Your task to perform on an android device: Find coffee shops on Maps Image 0: 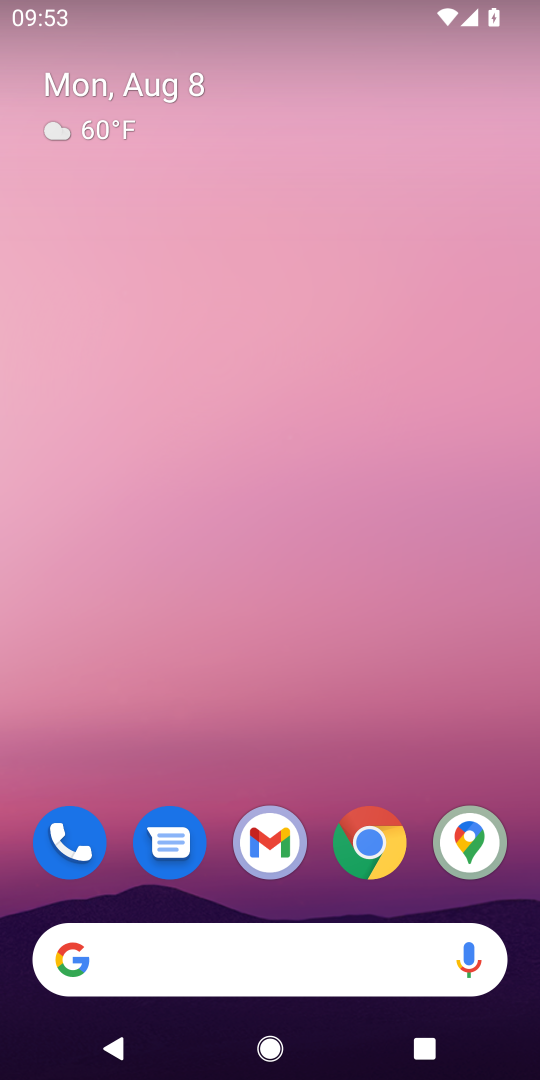
Step 0: click (480, 850)
Your task to perform on an android device: Find coffee shops on Maps Image 1: 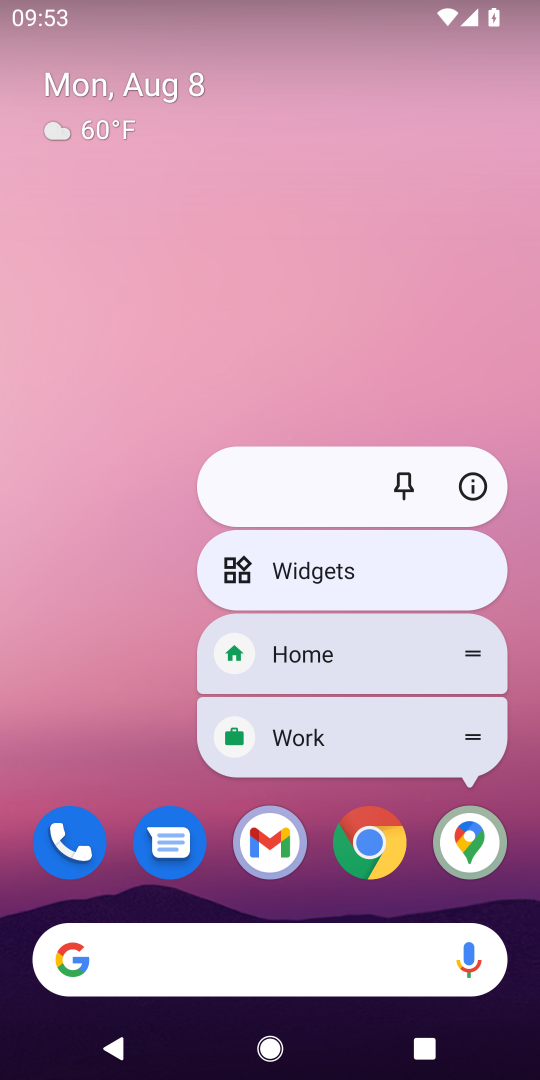
Step 1: click (480, 850)
Your task to perform on an android device: Find coffee shops on Maps Image 2: 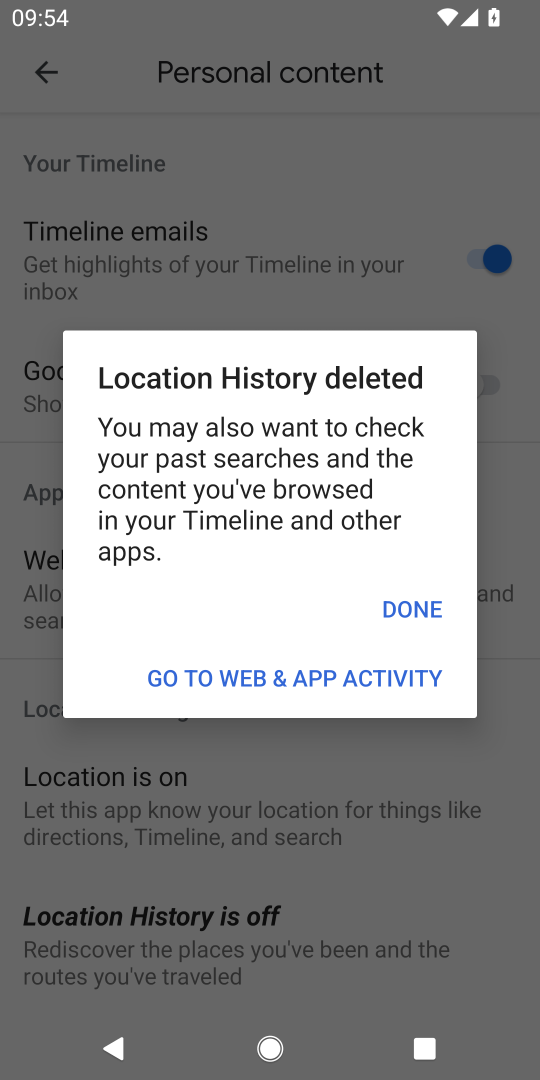
Step 2: click (420, 597)
Your task to perform on an android device: Find coffee shops on Maps Image 3: 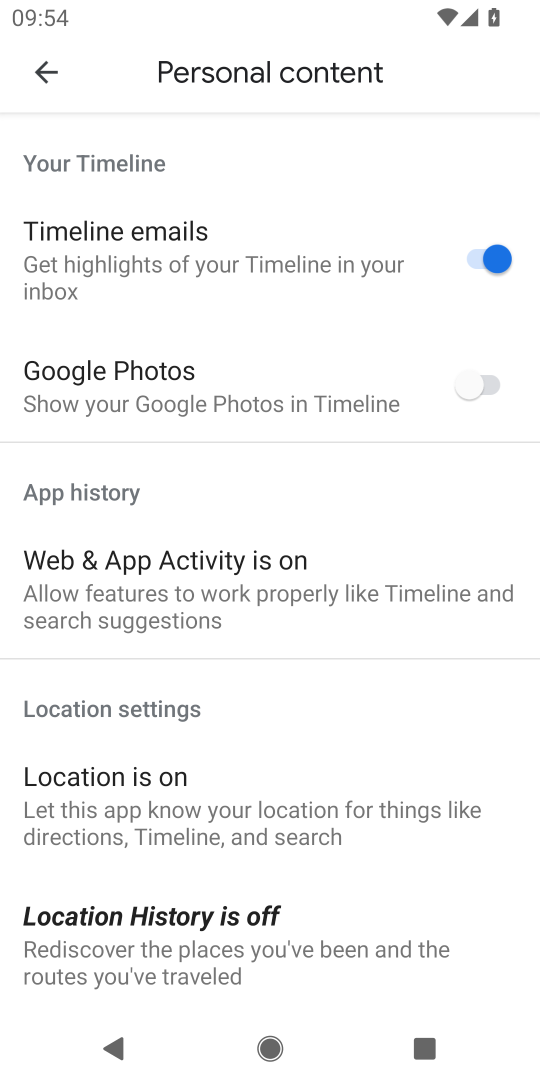
Step 3: click (37, 56)
Your task to perform on an android device: Find coffee shops on Maps Image 4: 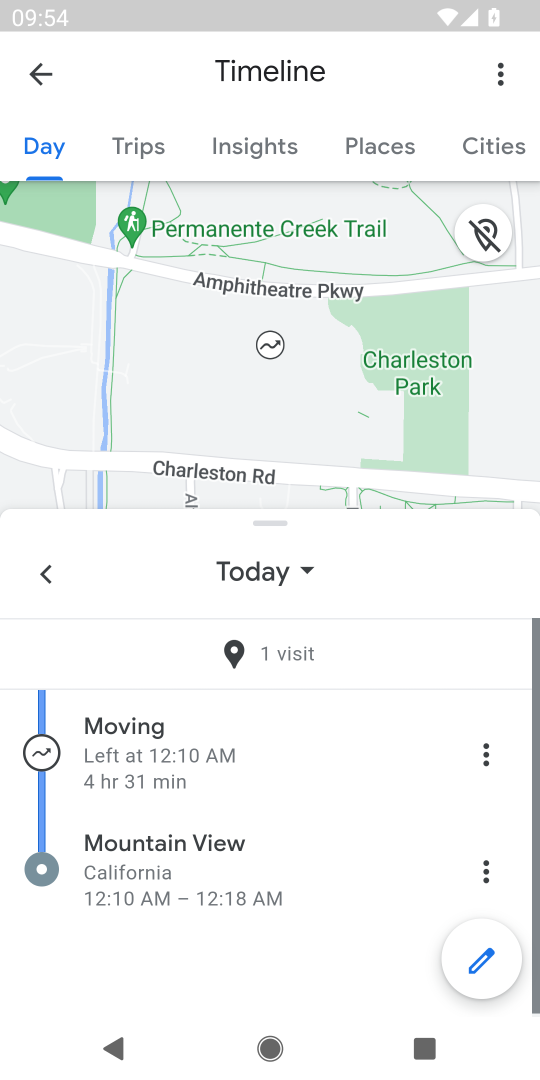
Step 4: click (38, 75)
Your task to perform on an android device: Find coffee shops on Maps Image 5: 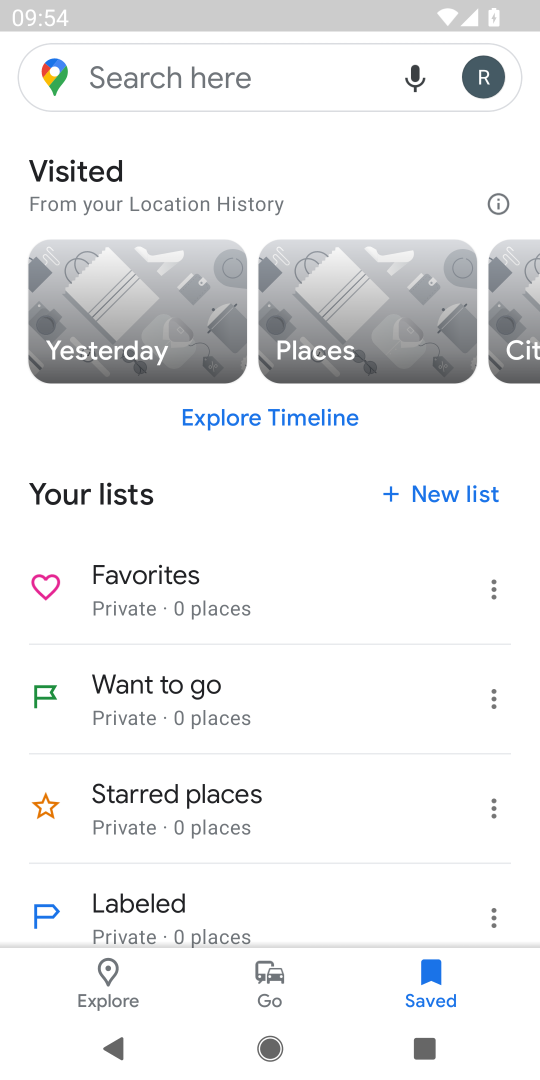
Step 5: click (92, 988)
Your task to perform on an android device: Find coffee shops on Maps Image 6: 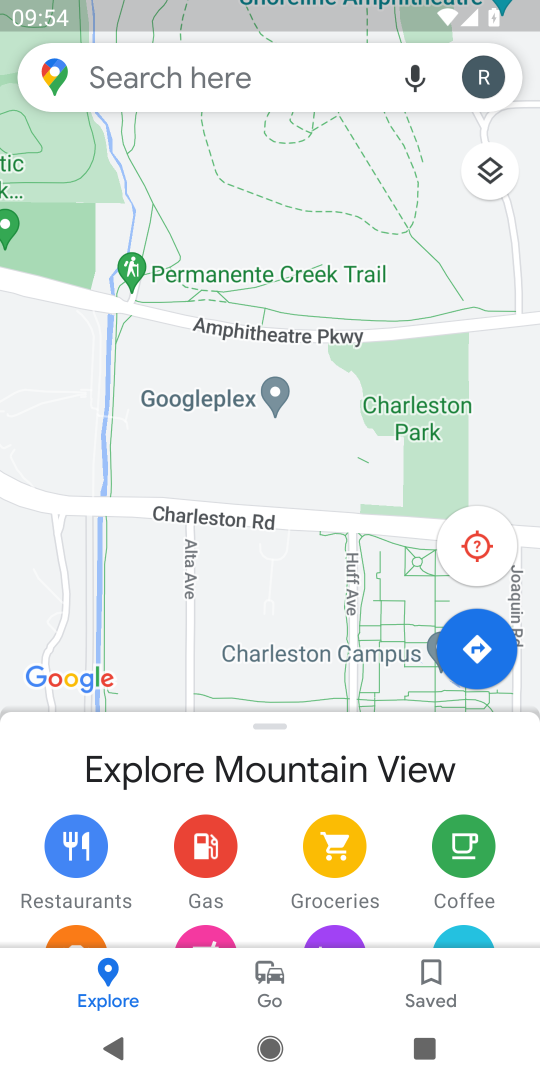
Step 6: click (268, 81)
Your task to perform on an android device: Find coffee shops on Maps Image 7: 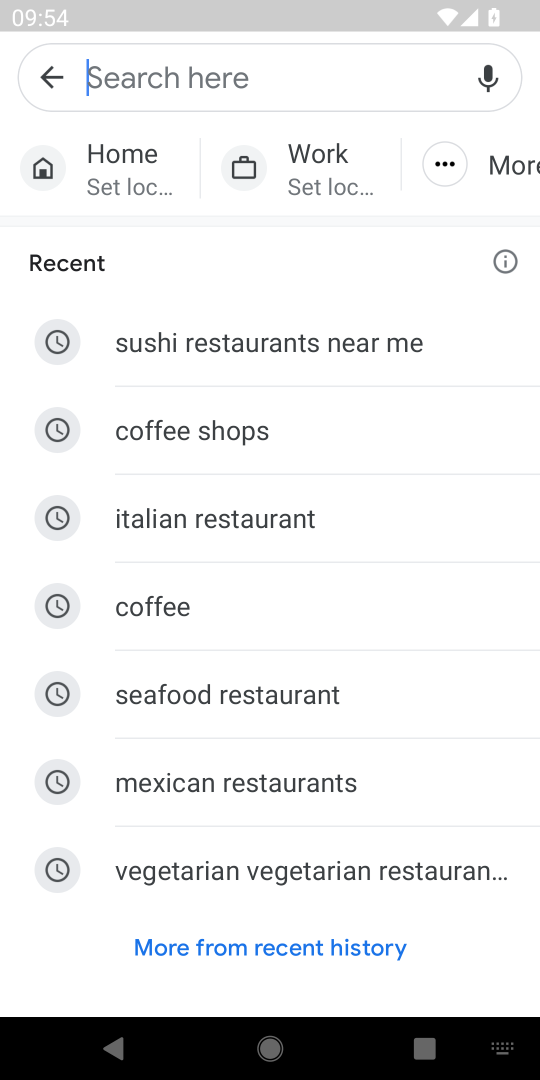
Step 7: type "coffee shops"
Your task to perform on an android device: Find coffee shops on Maps Image 8: 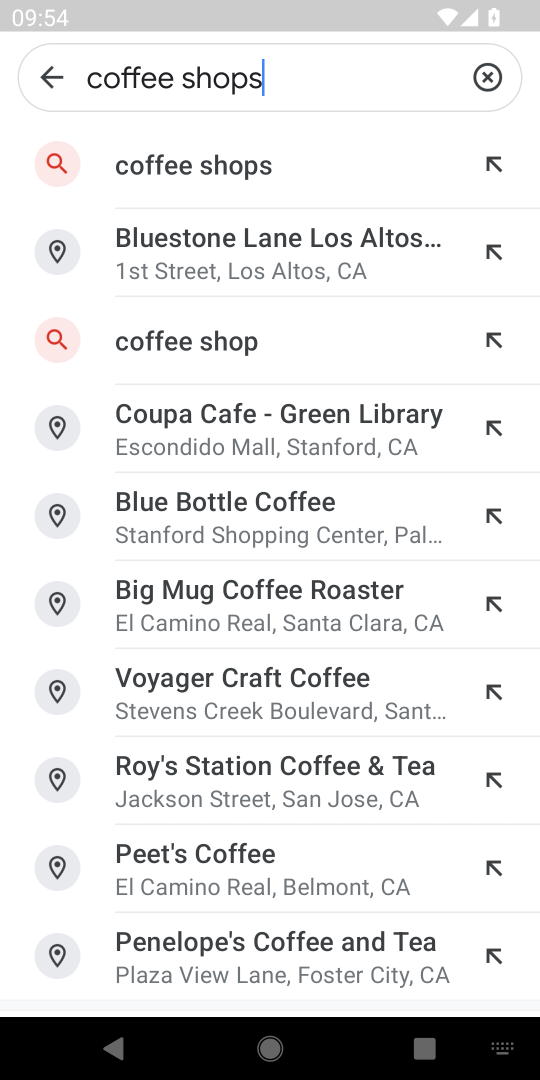
Step 8: click (224, 140)
Your task to perform on an android device: Find coffee shops on Maps Image 9: 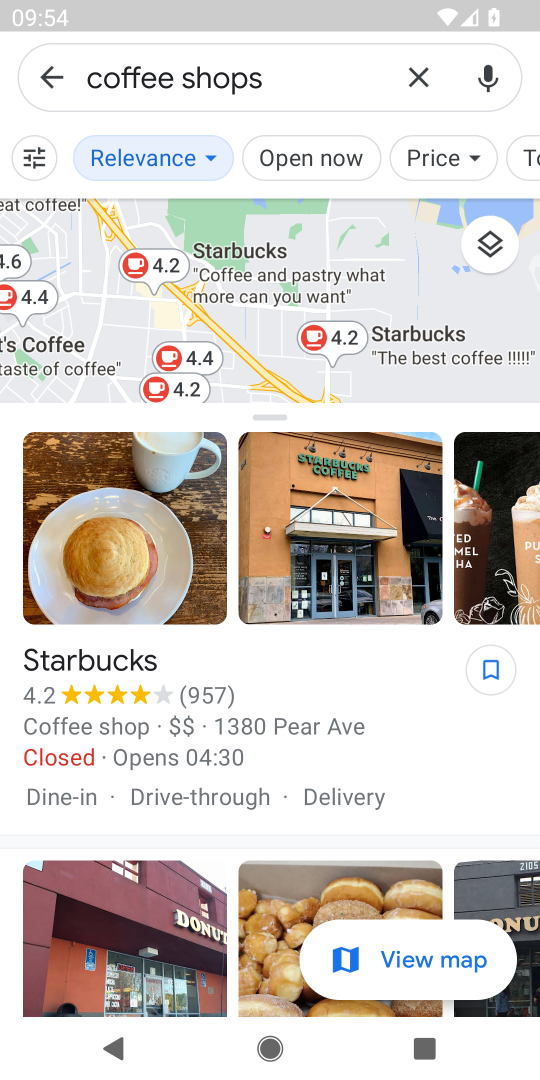
Step 9: task complete